Your task to perform on an android device: open app "Messenger Lite" Image 0: 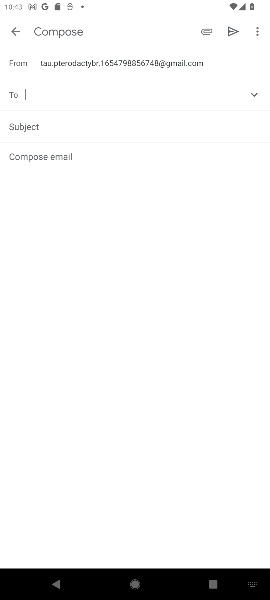
Step 0: press home button
Your task to perform on an android device: open app "Messenger Lite" Image 1: 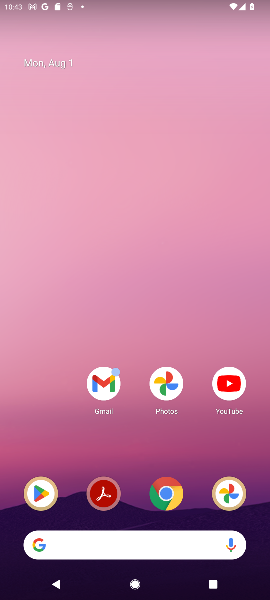
Step 1: drag from (67, 523) to (57, 177)
Your task to perform on an android device: open app "Messenger Lite" Image 2: 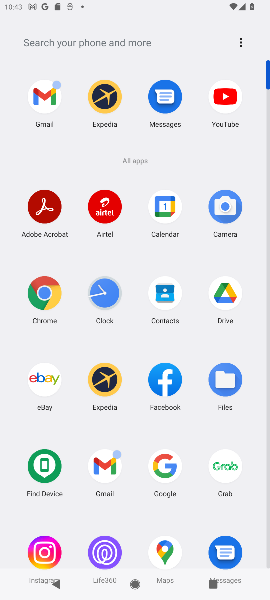
Step 2: click (149, 38)
Your task to perform on an android device: open app "Messenger Lite" Image 3: 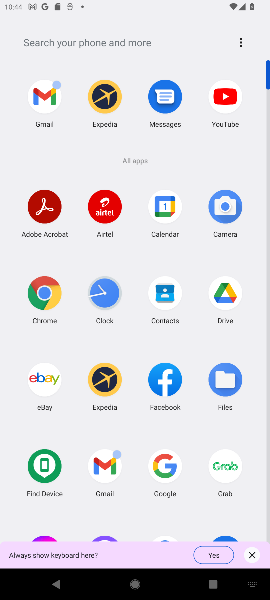
Step 3: type "messanger"
Your task to perform on an android device: open app "Messenger Lite" Image 4: 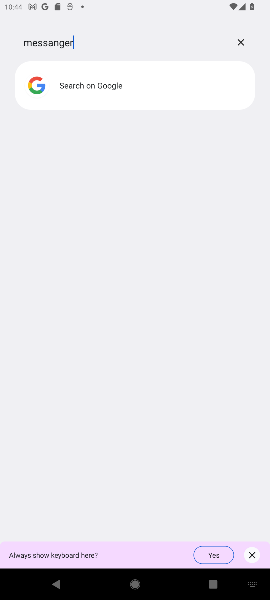
Step 4: task complete